Your task to perform on an android device: turn off picture-in-picture Image 0: 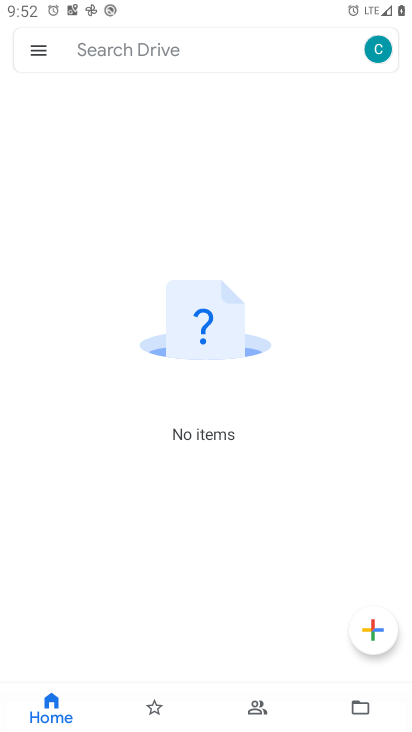
Step 0: press home button
Your task to perform on an android device: turn off picture-in-picture Image 1: 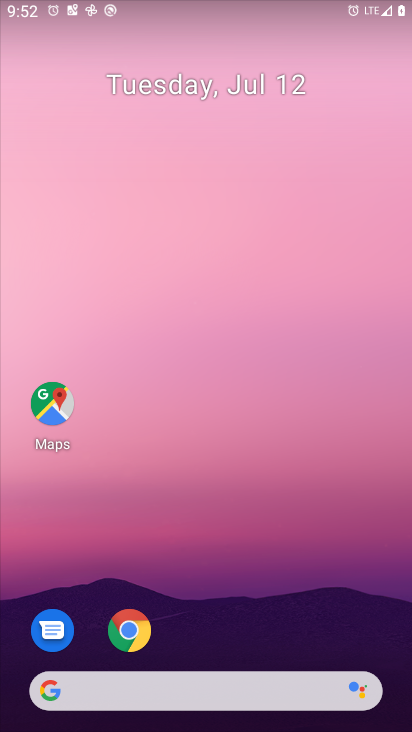
Step 1: click (130, 626)
Your task to perform on an android device: turn off picture-in-picture Image 2: 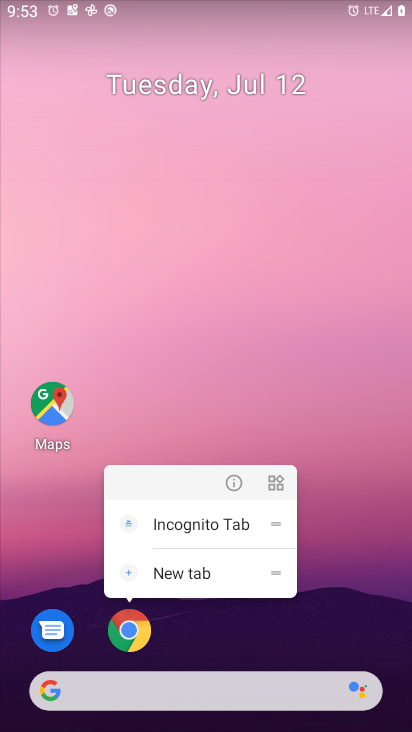
Step 2: click (242, 487)
Your task to perform on an android device: turn off picture-in-picture Image 3: 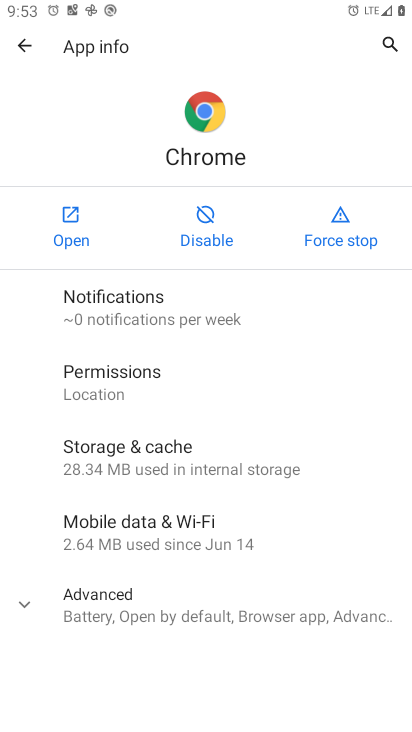
Step 3: click (25, 605)
Your task to perform on an android device: turn off picture-in-picture Image 4: 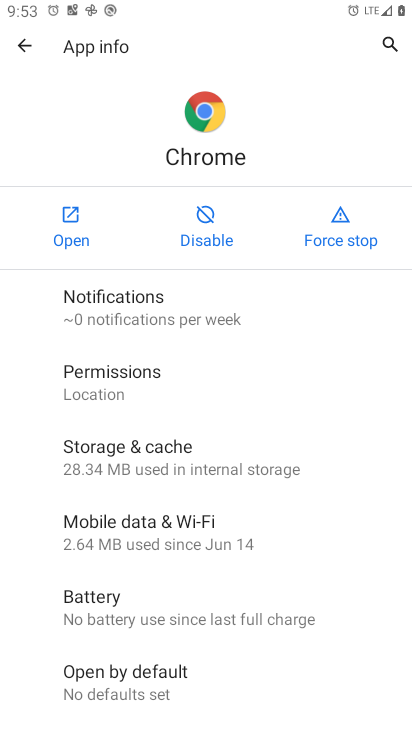
Step 4: drag from (270, 655) to (253, 180)
Your task to perform on an android device: turn off picture-in-picture Image 5: 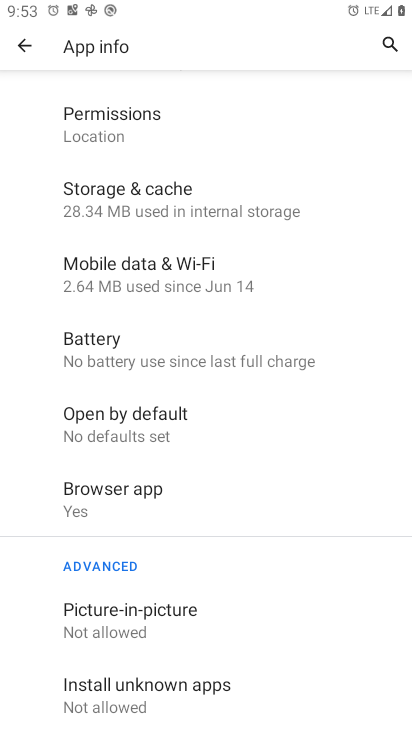
Step 5: click (147, 628)
Your task to perform on an android device: turn off picture-in-picture Image 6: 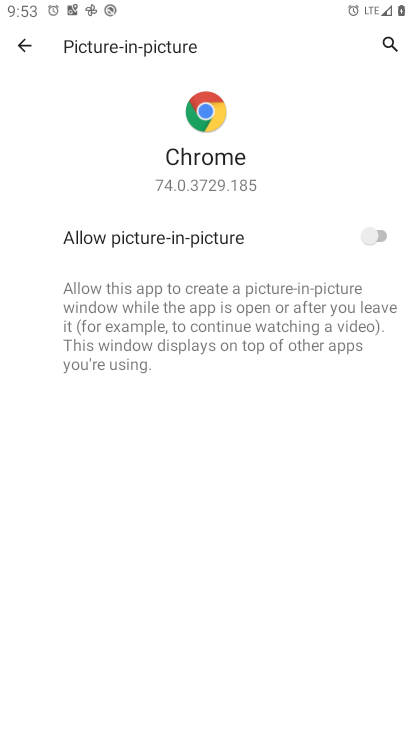
Step 6: task complete